Your task to perform on an android device: Open the calendar and show me this week's events Image 0: 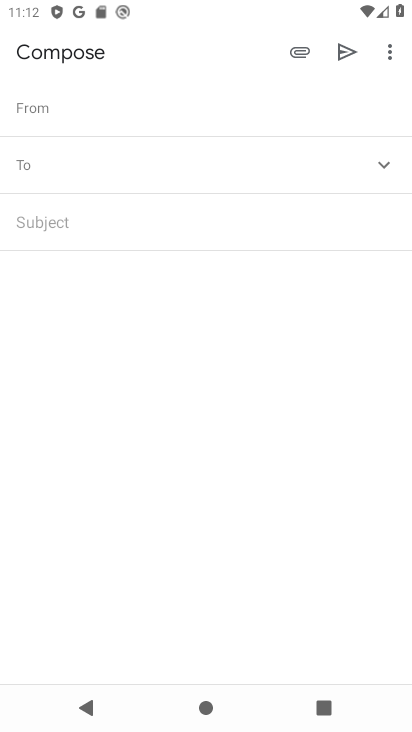
Step 0: drag from (196, 613) to (257, 112)
Your task to perform on an android device: Open the calendar and show me this week's events Image 1: 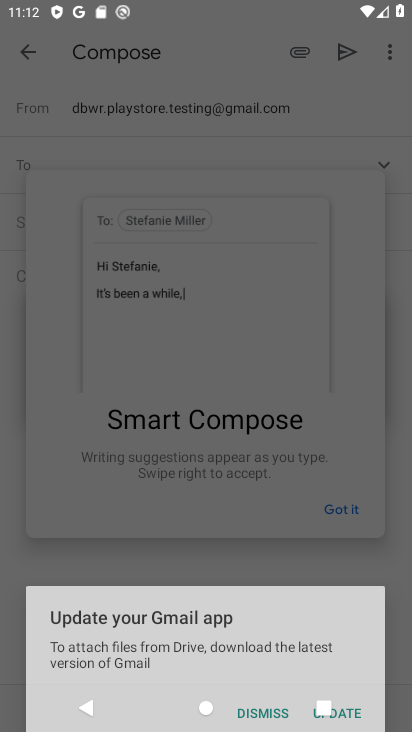
Step 1: press home button
Your task to perform on an android device: Open the calendar and show me this week's events Image 2: 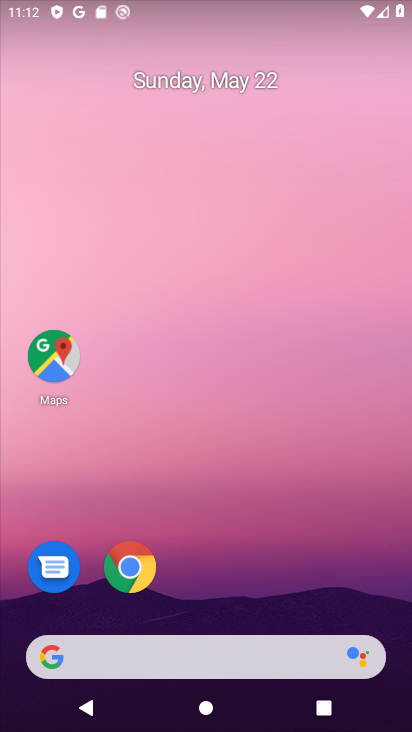
Step 2: click (196, 77)
Your task to perform on an android device: Open the calendar and show me this week's events Image 3: 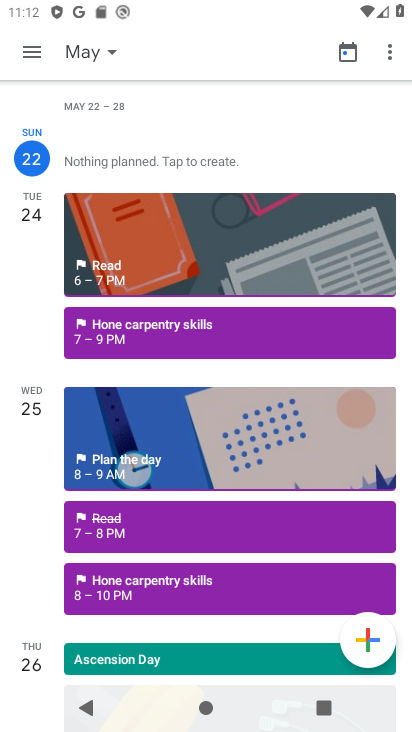
Step 3: click (99, 68)
Your task to perform on an android device: Open the calendar and show me this week's events Image 4: 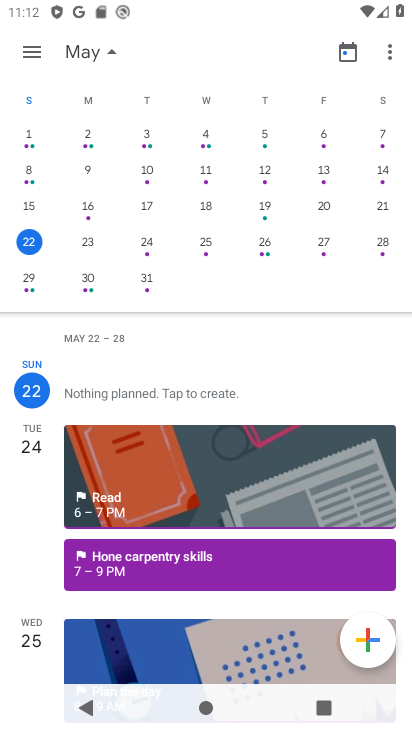
Step 4: drag from (17, 541) to (139, 189)
Your task to perform on an android device: Open the calendar and show me this week's events Image 5: 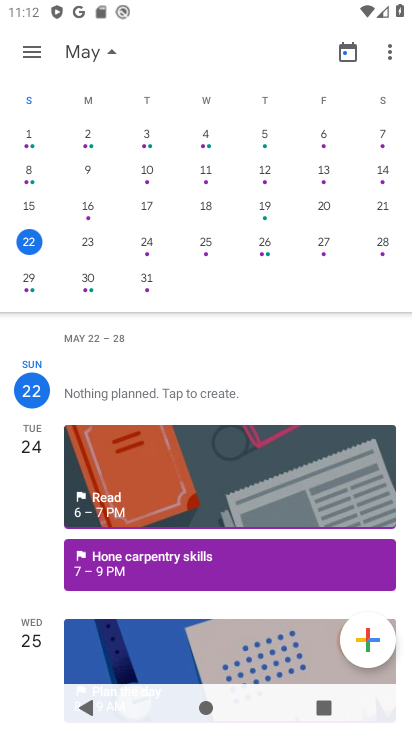
Step 5: click (38, 54)
Your task to perform on an android device: Open the calendar and show me this week's events Image 6: 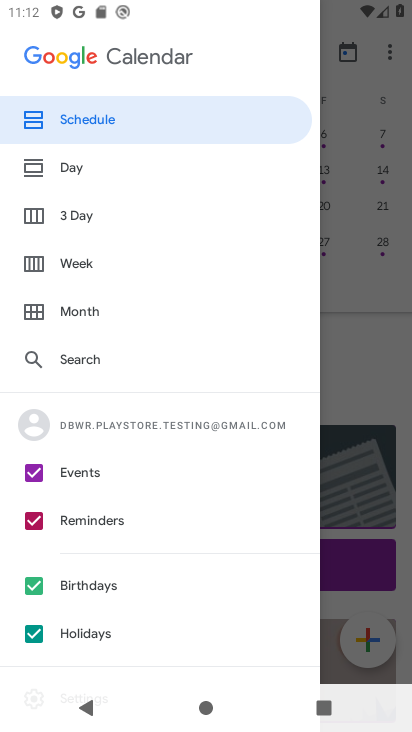
Step 6: click (26, 518)
Your task to perform on an android device: Open the calendar and show me this week's events Image 7: 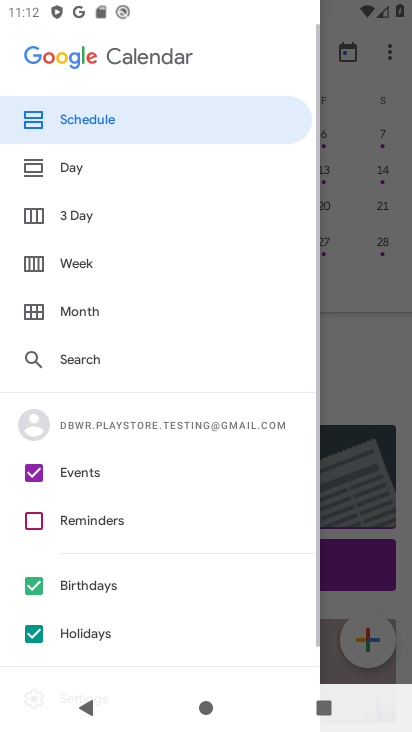
Step 7: click (30, 575)
Your task to perform on an android device: Open the calendar and show me this week's events Image 8: 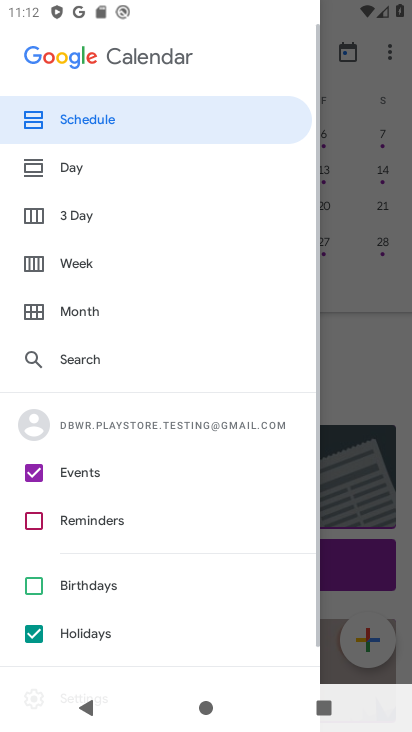
Step 8: click (29, 639)
Your task to perform on an android device: Open the calendar and show me this week's events Image 9: 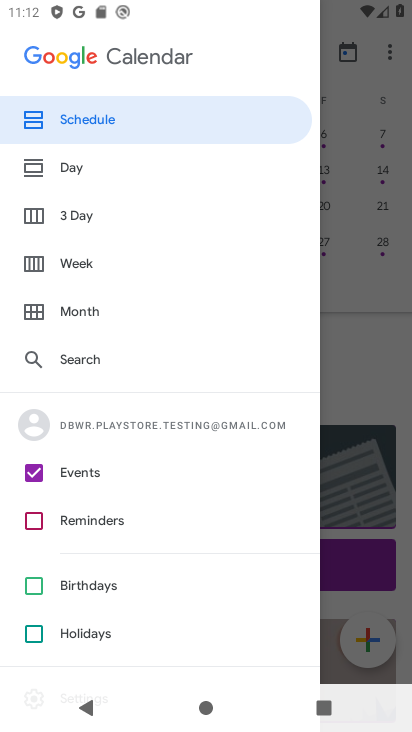
Step 9: click (104, 268)
Your task to perform on an android device: Open the calendar and show me this week's events Image 10: 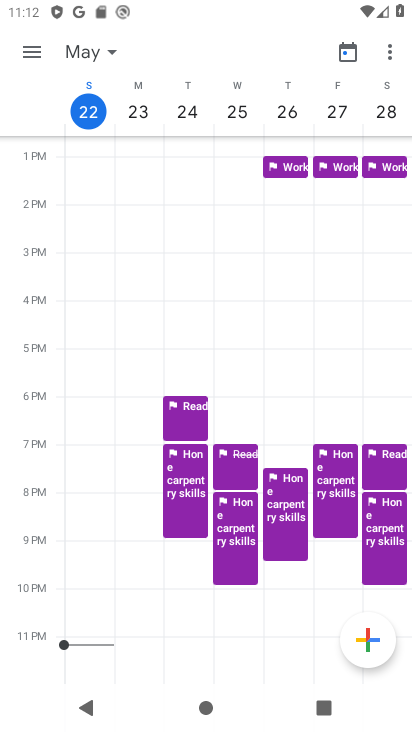
Step 10: click (88, 267)
Your task to perform on an android device: Open the calendar and show me this week's events Image 11: 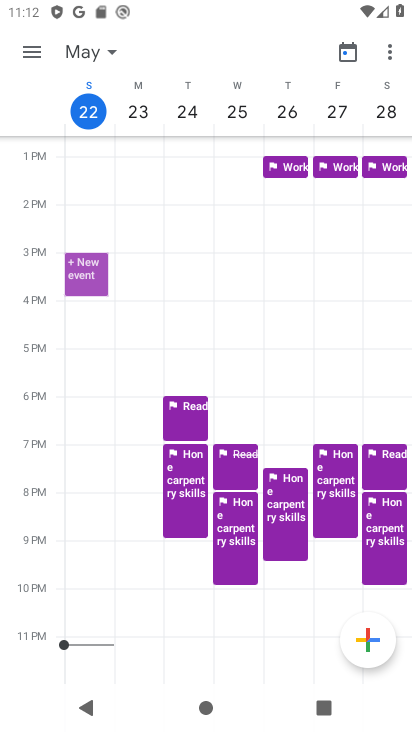
Step 11: task complete